Your task to perform on an android device: Open Yahoo.com Image 0: 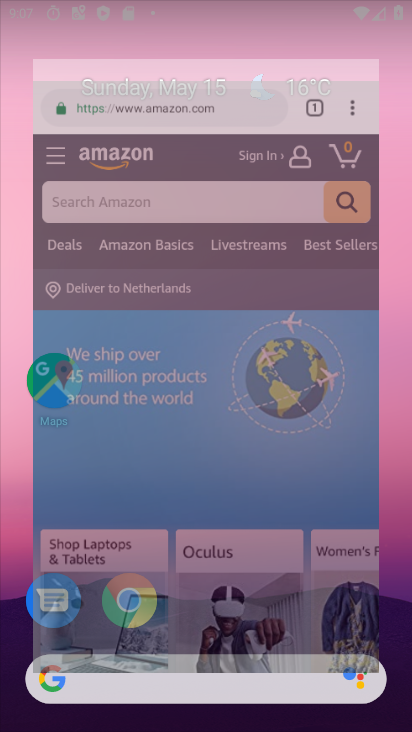
Step 0: drag from (233, 603) to (393, 57)
Your task to perform on an android device: Open Yahoo.com Image 1: 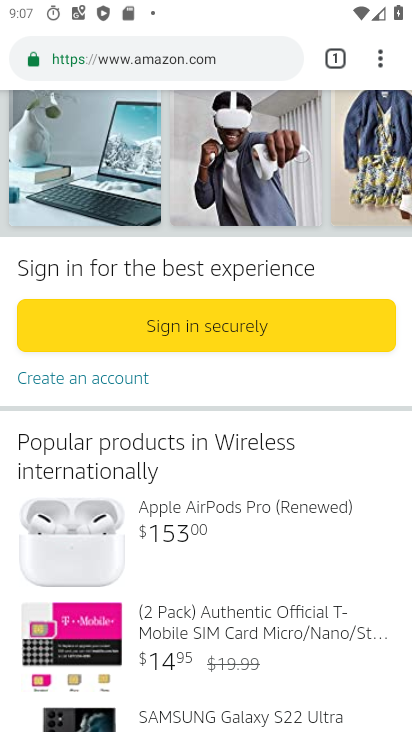
Step 1: press back button
Your task to perform on an android device: Open Yahoo.com Image 2: 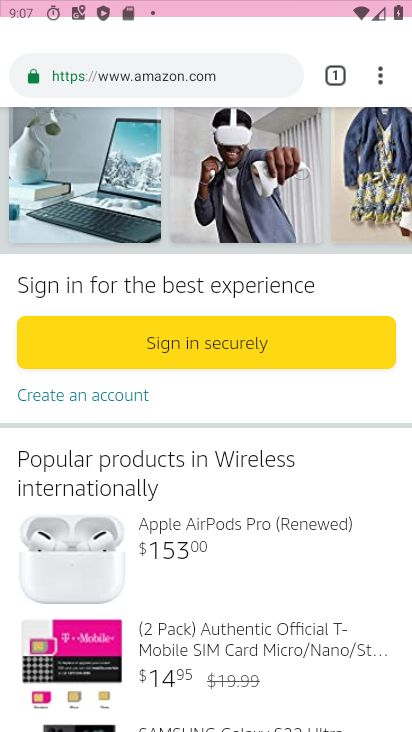
Step 2: drag from (393, 57) to (408, 391)
Your task to perform on an android device: Open Yahoo.com Image 3: 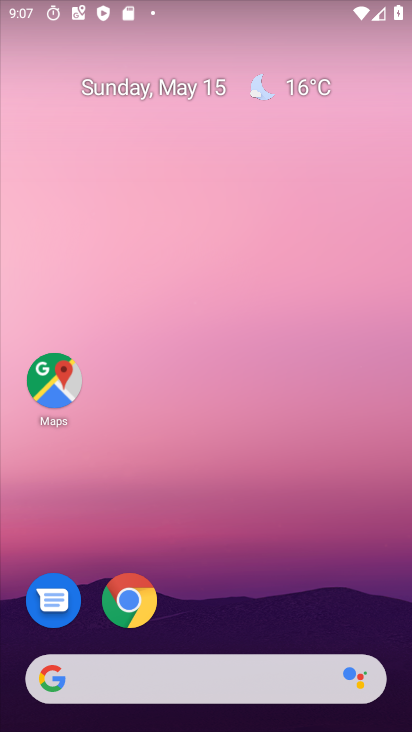
Step 3: click (122, 598)
Your task to perform on an android device: Open Yahoo.com Image 4: 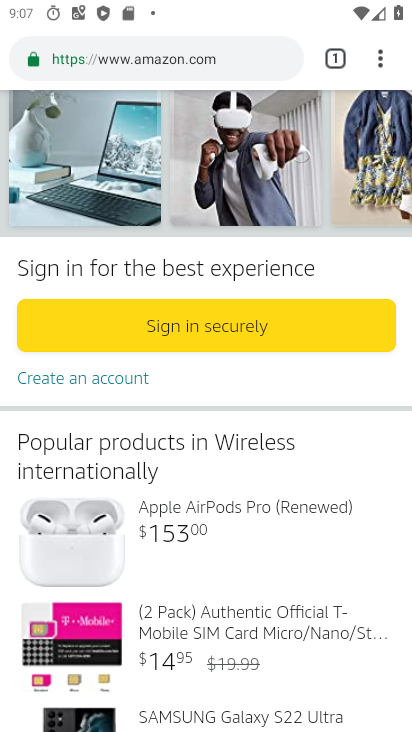
Step 4: click (221, 56)
Your task to perform on an android device: Open Yahoo.com Image 5: 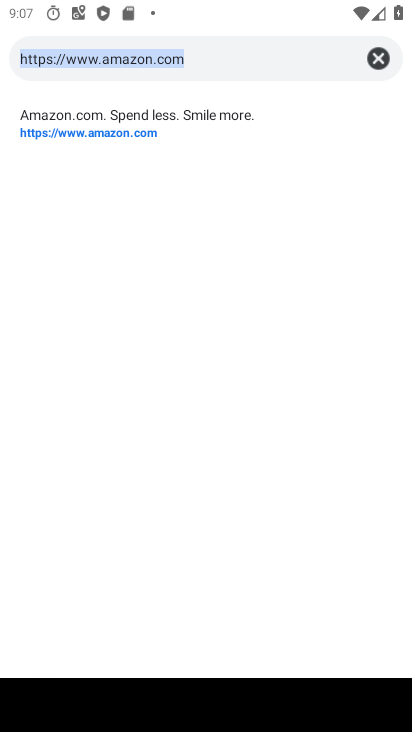
Step 5: click (376, 60)
Your task to perform on an android device: Open Yahoo.com Image 6: 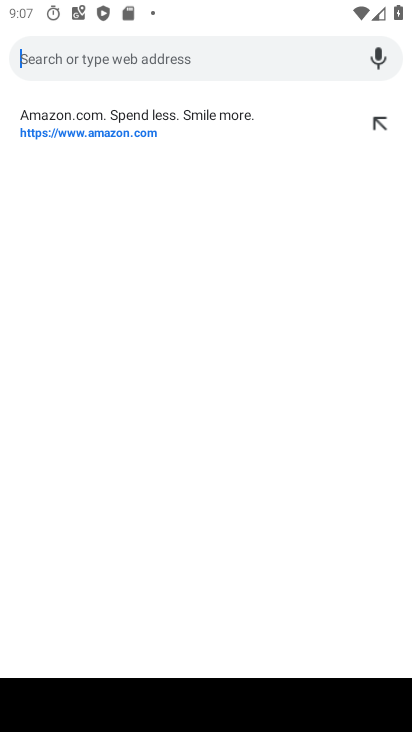
Step 6: type "yahoo.com"
Your task to perform on an android device: Open Yahoo.com Image 7: 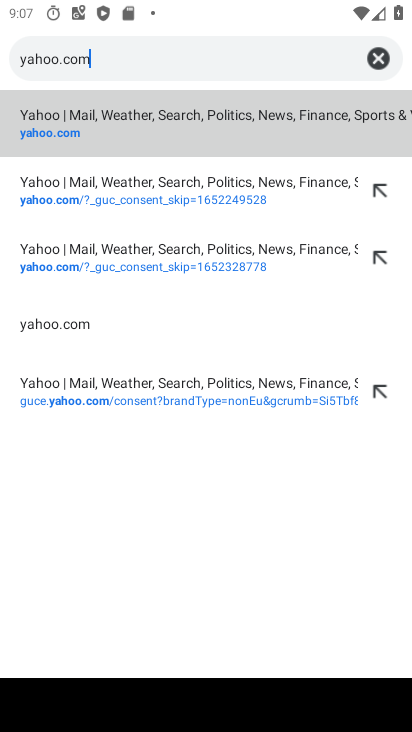
Step 7: click (214, 125)
Your task to perform on an android device: Open Yahoo.com Image 8: 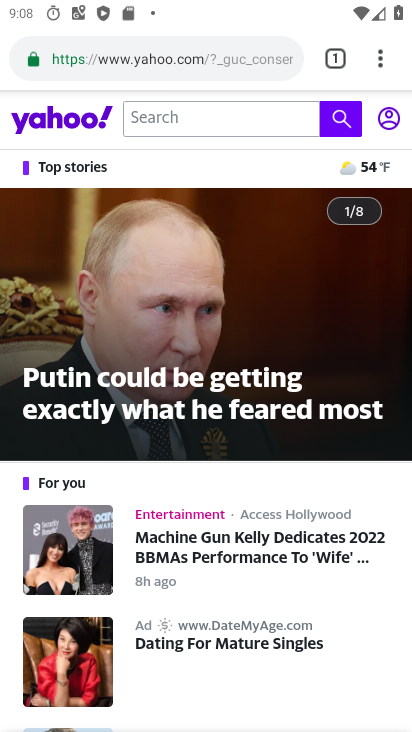
Step 8: task complete